Your task to perform on an android device: find which apps use the phone's location Image 0: 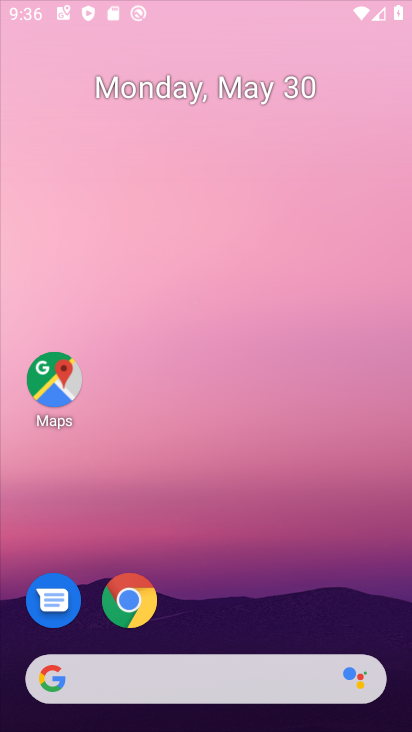
Step 0: press home button
Your task to perform on an android device: find which apps use the phone's location Image 1: 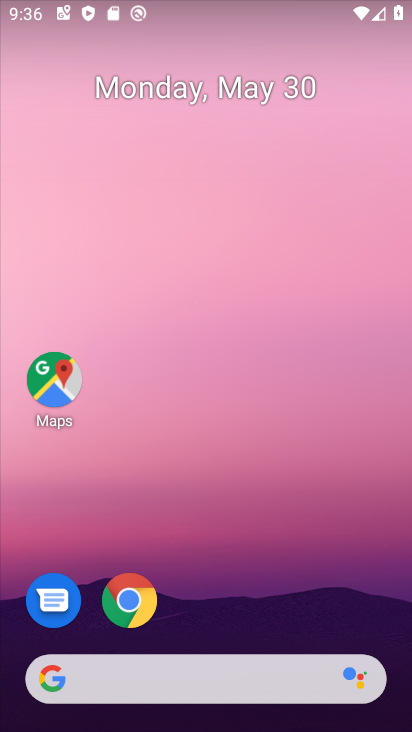
Step 1: drag from (242, 638) to (265, 64)
Your task to perform on an android device: find which apps use the phone's location Image 2: 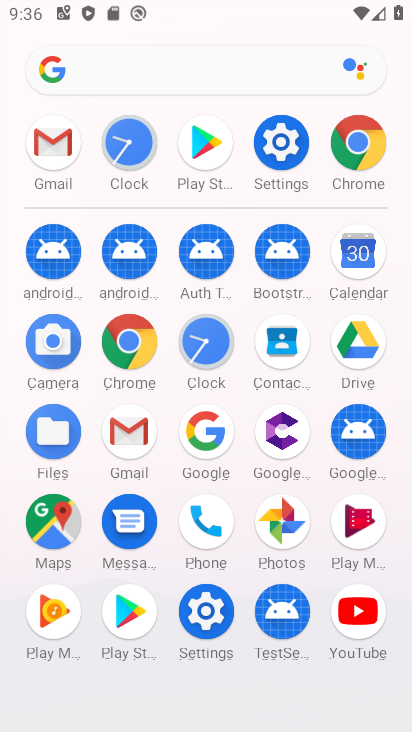
Step 2: click (276, 155)
Your task to perform on an android device: find which apps use the phone's location Image 3: 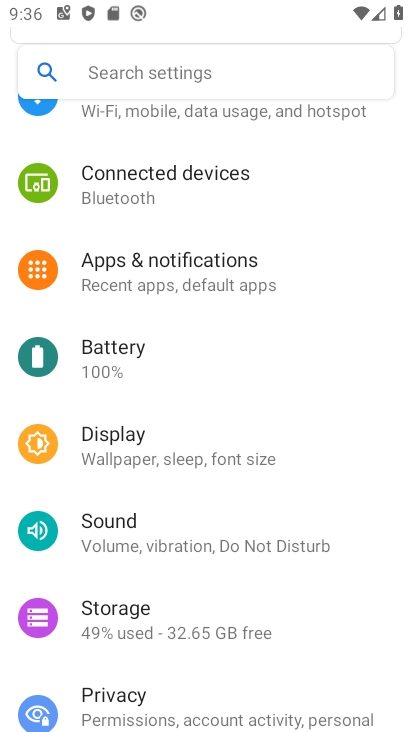
Step 3: drag from (253, 491) to (253, 234)
Your task to perform on an android device: find which apps use the phone's location Image 4: 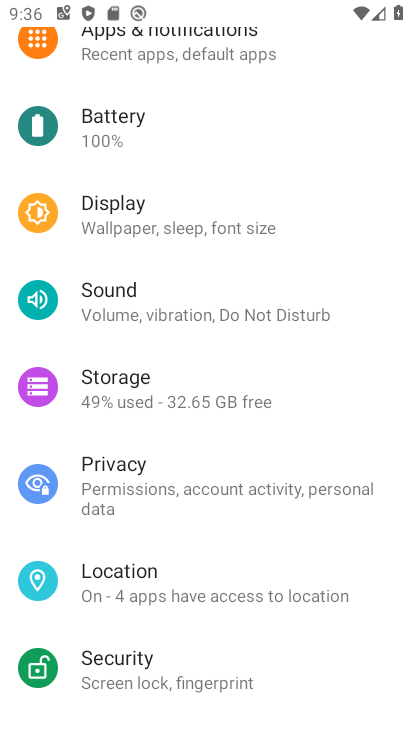
Step 4: click (130, 589)
Your task to perform on an android device: find which apps use the phone's location Image 5: 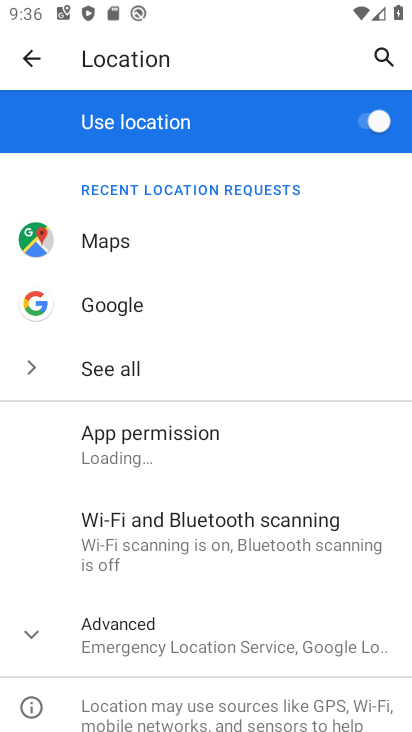
Step 5: click (134, 441)
Your task to perform on an android device: find which apps use the phone's location Image 6: 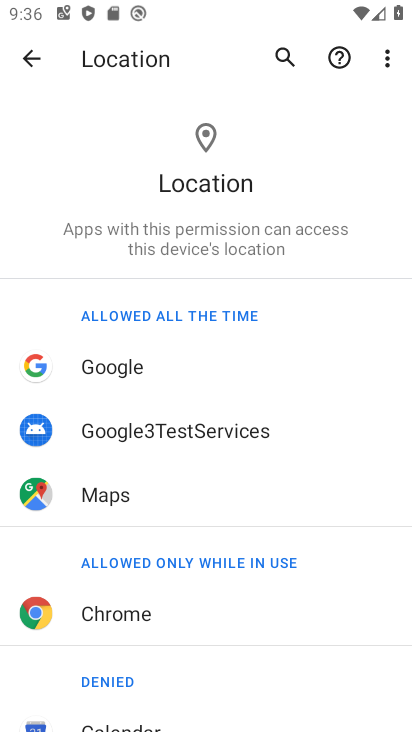
Step 6: task complete